Your task to perform on an android device: see sites visited before in the chrome app Image 0: 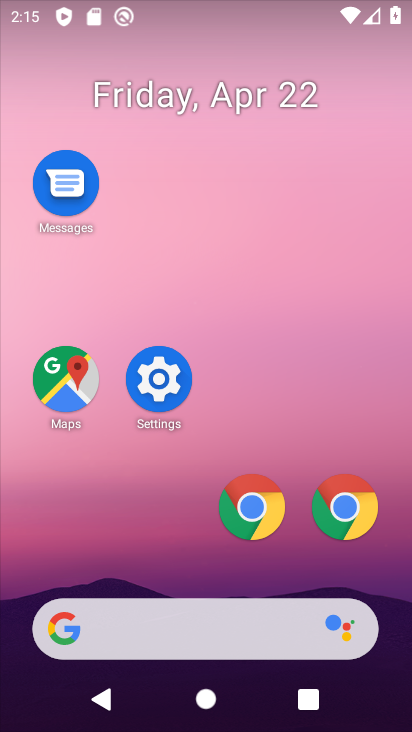
Step 0: drag from (260, 330) to (254, 102)
Your task to perform on an android device: see sites visited before in the chrome app Image 1: 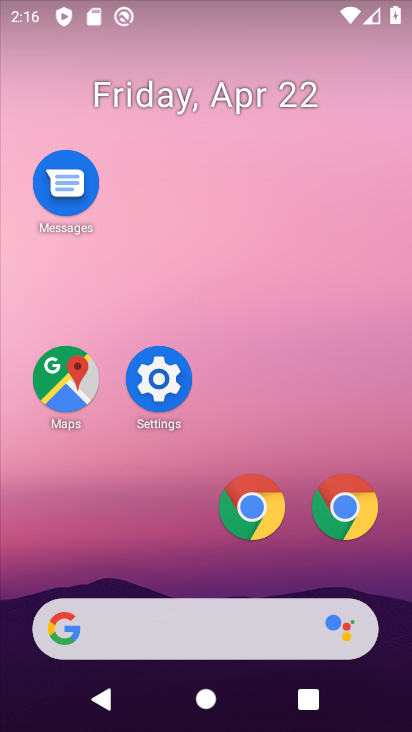
Step 1: click (252, 110)
Your task to perform on an android device: see sites visited before in the chrome app Image 2: 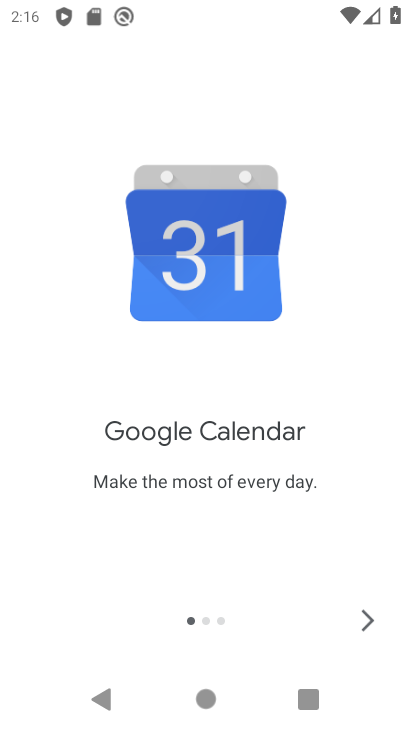
Step 2: click (367, 617)
Your task to perform on an android device: see sites visited before in the chrome app Image 3: 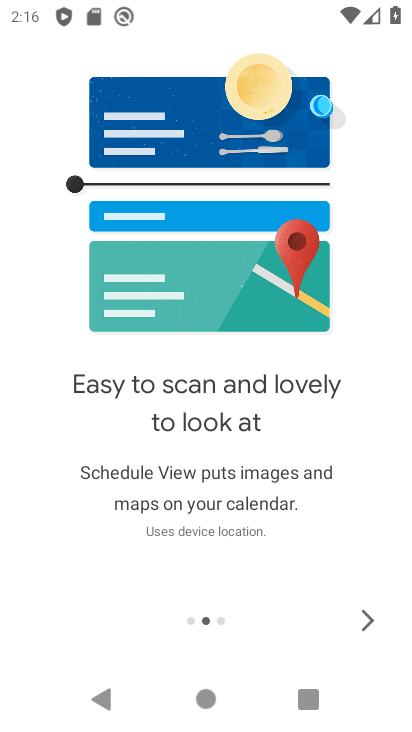
Step 3: click (373, 616)
Your task to perform on an android device: see sites visited before in the chrome app Image 4: 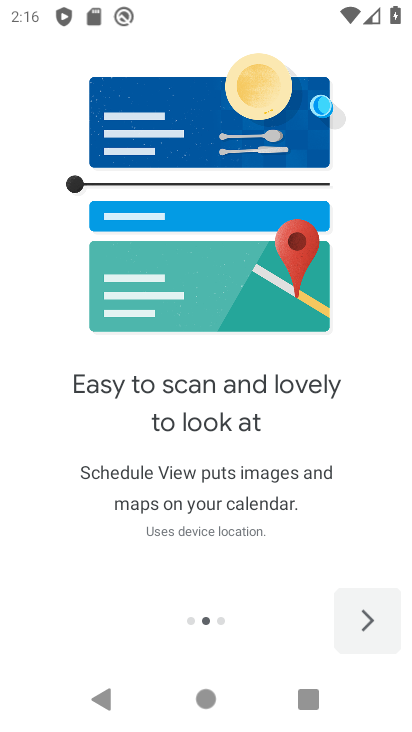
Step 4: click (373, 616)
Your task to perform on an android device: see sites visited before in the chrome app Image 5: 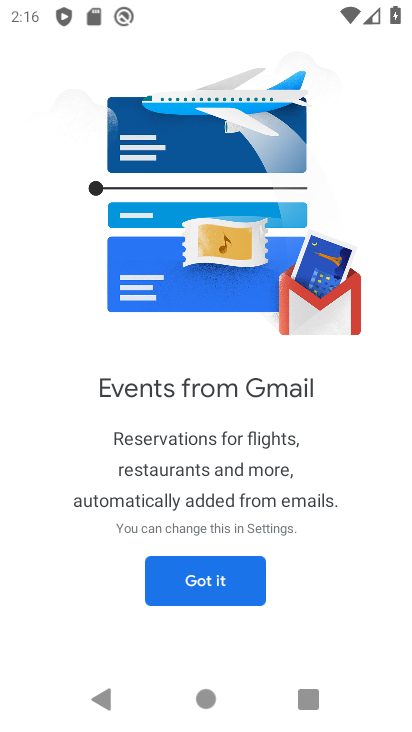
Step 5: click (203, 573)
Your task to perform on an android device: see sites visited before in the chrome app Image 6: 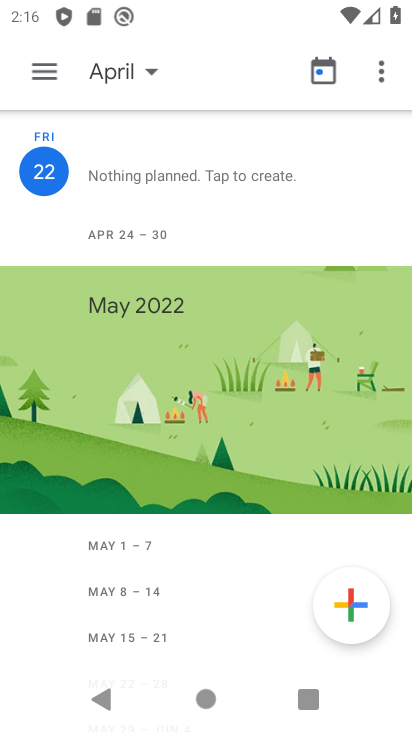
Step 6: drag from (218, 473) to (117, 115)
Your task to perform on an android device: see sites visited before in the chrome app Image 7: 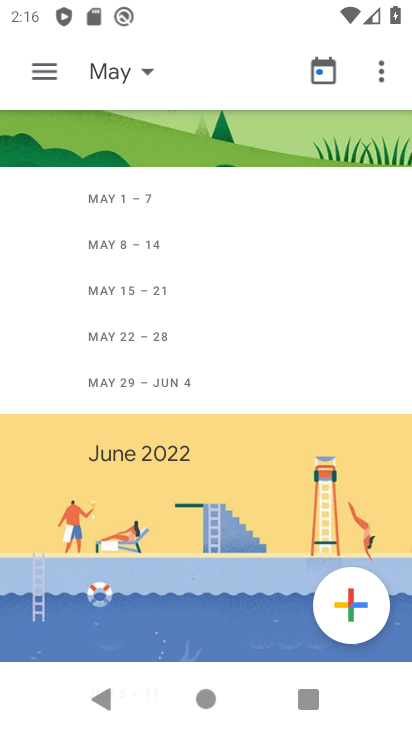
Step 7: drag from (219, 515) to (116, 12)
Your task to perform on an android device: see sites visited before in the chrome app Image 8: 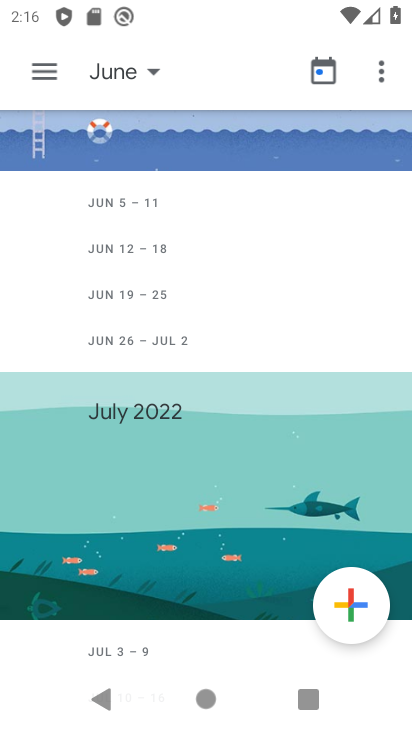
Step 8: drag from (130, 391) to (90, 43)
Your task to perform on an android device: see sites visited before in the chrome app Image 9: 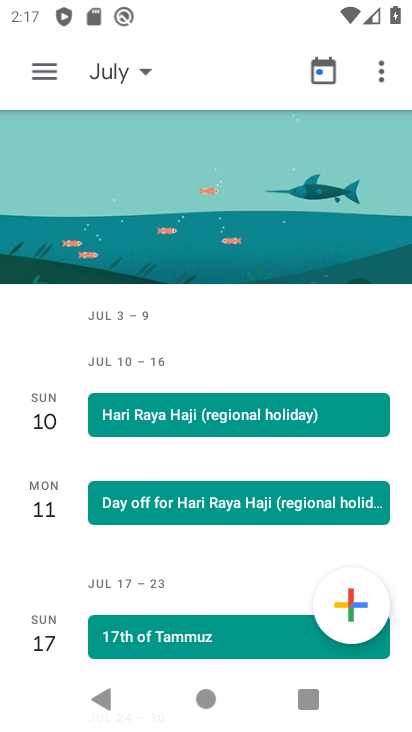
Step 9: press home button
Your task to perform on an android device: see sites visited before in the chrome app Image 10: 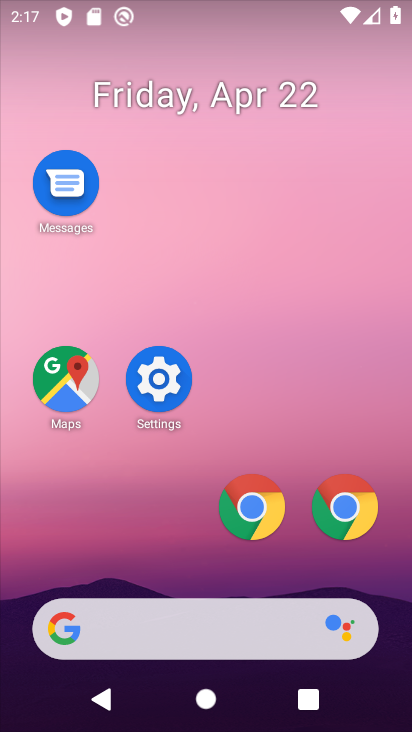
Step 10: click (146, 79)
Your task to perform on an android device: see sites visited before in the chrome app Image 11: 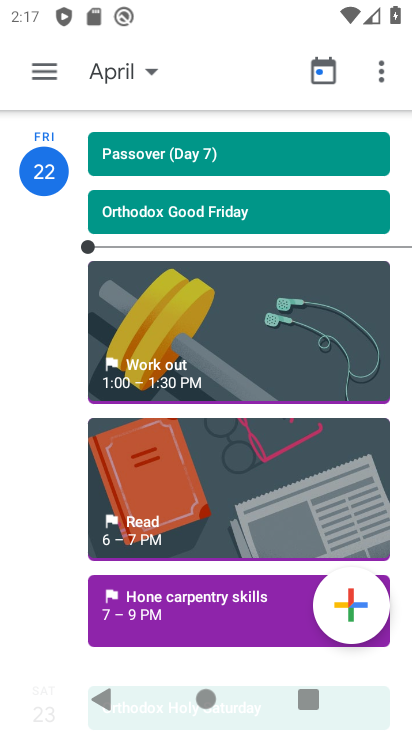
Step 11: press home button
Your task to perform on an android device: see sites visited before in the chrome app Image 12: 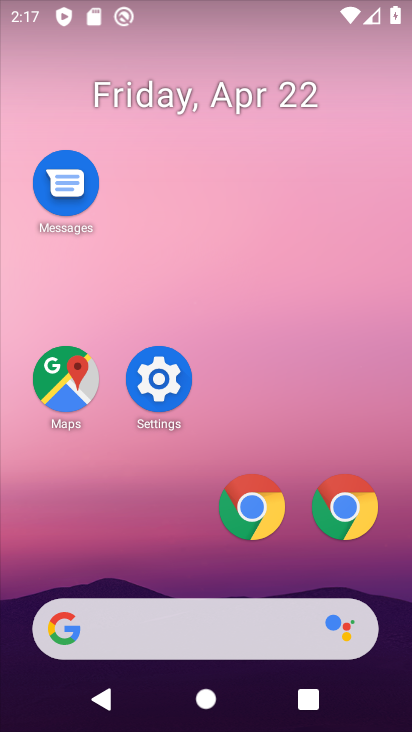
Step 12: drag from (252, 526) to (217, 126)
Your task to perform on an android device: see sites visited before in the chrome app Image 13: 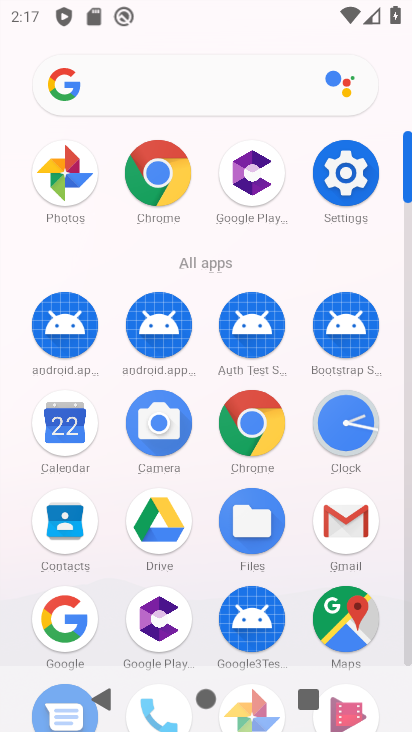
Step 13: click (148, 165)
Your task to perform on an android device: see sites visited before in the chrome app Image 14: 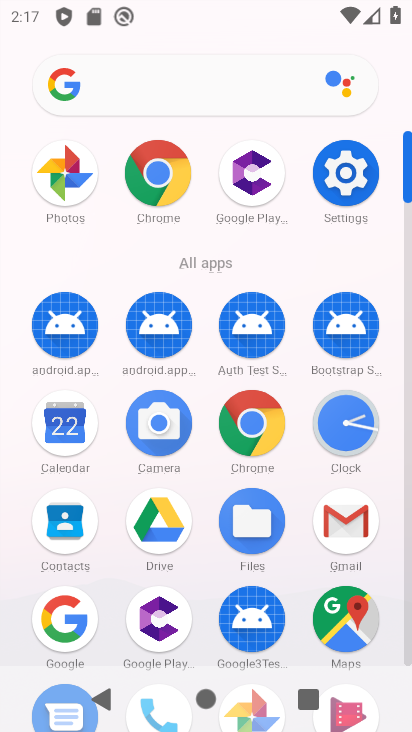
Step 14: click (149, 164)
Your task to perform on an android device: see sites visited before in the chrome app Image 15: 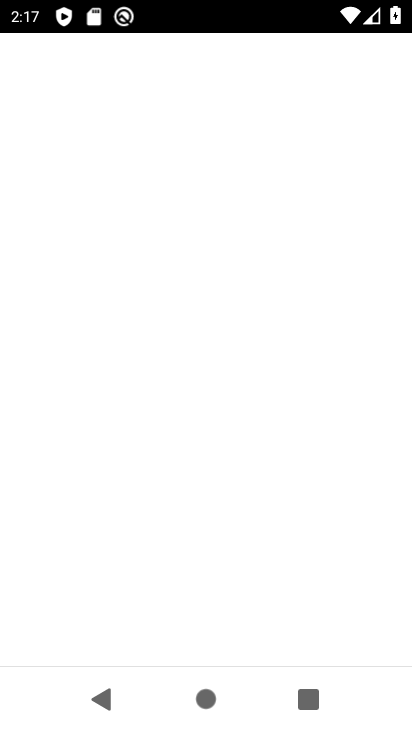
Step 15: click (144, 174)
Your task to perform on an android device: see sites visited before in the chrome app Image 16: 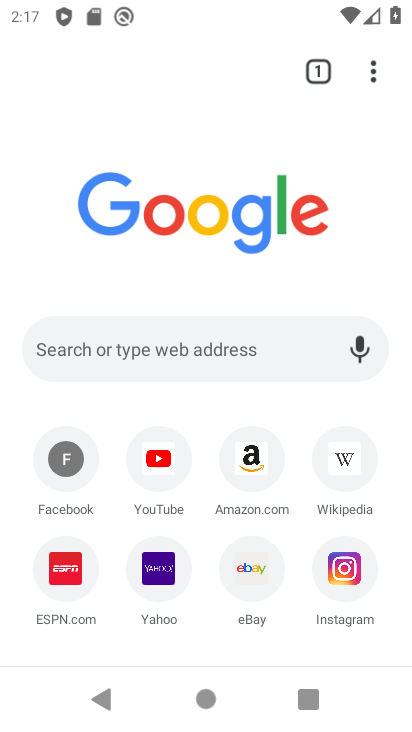
Step 16: drag from (375, 64) to (119, 337)
Your task to perform on an android device: see sites visited before in the chrome app Image 17: 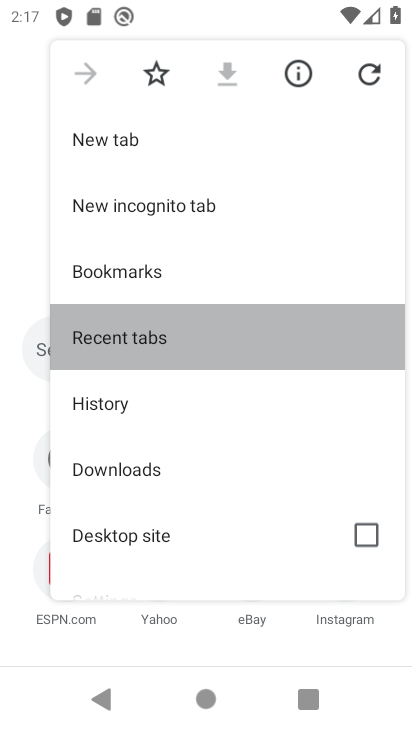
Step 17: click (119, 337)
Your task to perform on an android device: see sites visited before in the chrome app Image 18: 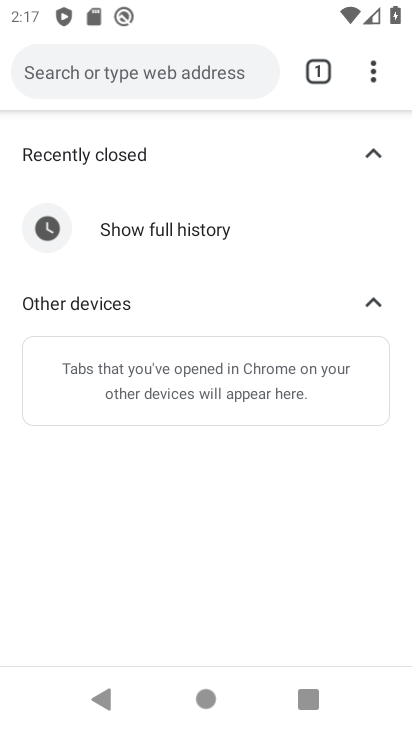
Step 18: click (120, 339)
Your task to perform on an android device: see sites visited before in the chrome app Image 19: 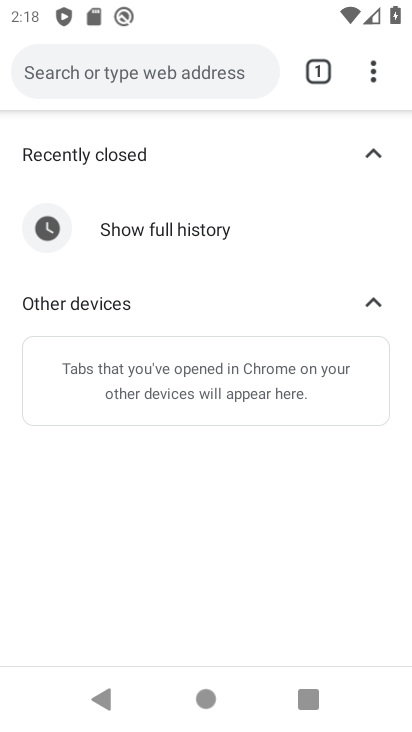
Step 19: task complete